Your task to perform on an android device: clear all cookies in the chrome app Image 0: 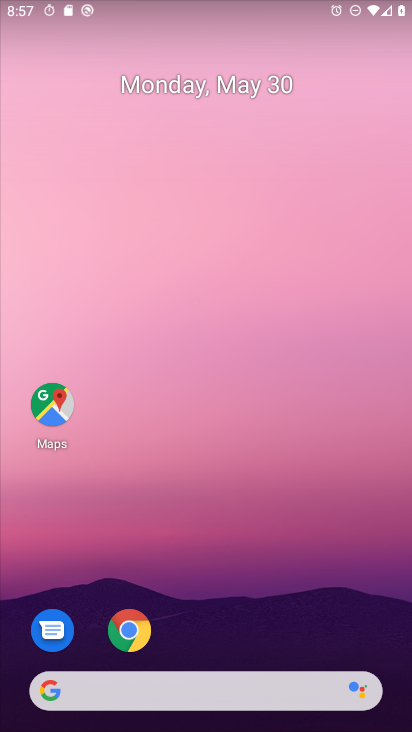
Step 0: drag from (383, 643) to (312, 59)
Your task to perform on an android device: clear all cookies in the chrome app Image 1: 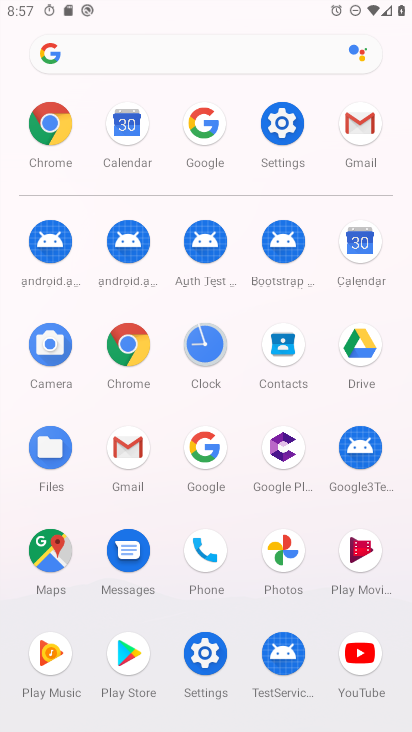
Step 1: click (139, 365)
Your task to perform on an android device: clear all cookies in the chrome app Image 2: 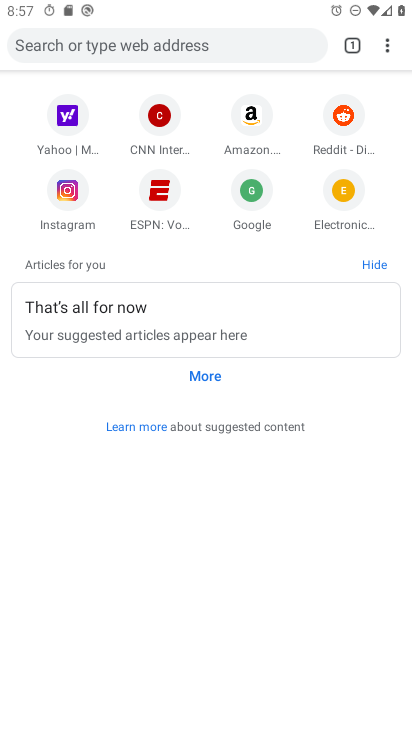
Step 2: click (380, 40)
Your task to perform on an android device: clear all cookies in the chrome app Image 3: 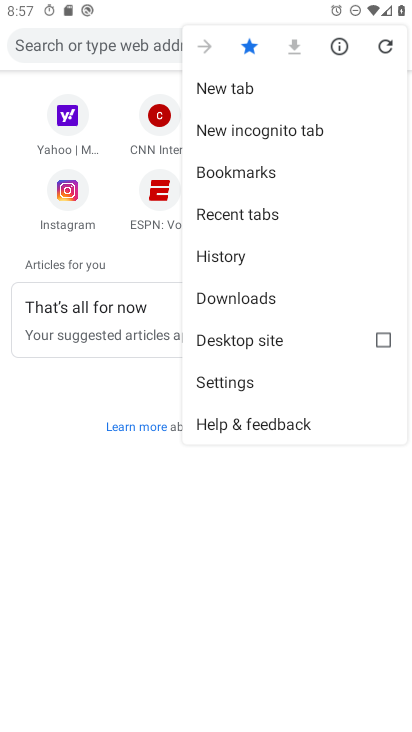
Step 3: click (242, 251)
Your task to perform on an android device: clear all cookies in the chrome app Image 4: 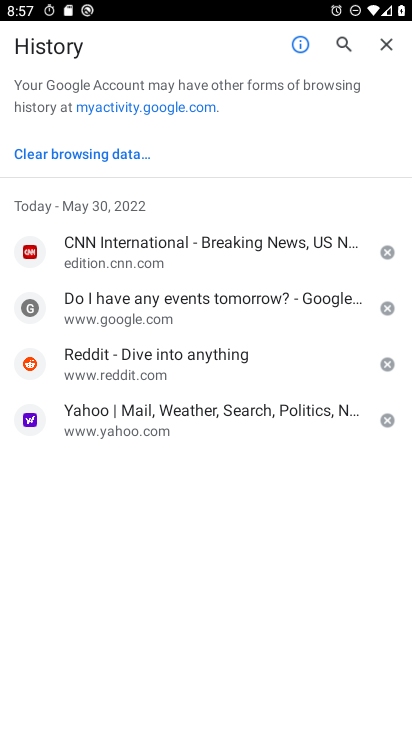
Step 4: click (87, 160)
Your task to perform on an android device: clear all cookies in the chrome app Image 5: 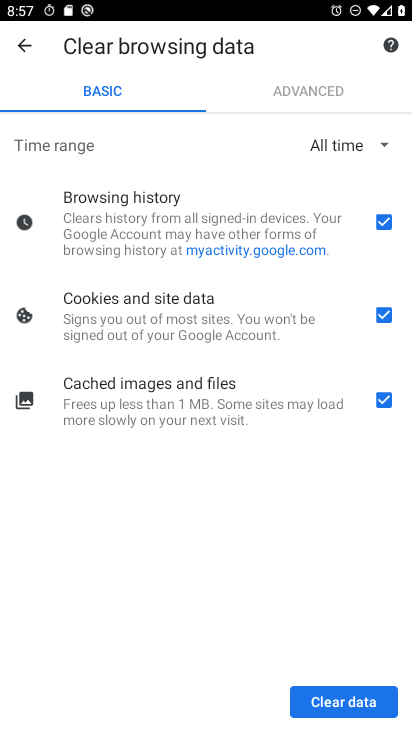
Step 5: click (320, 703)
Your task to perform on an android device: clear all cookies in the chrome app Image 6: 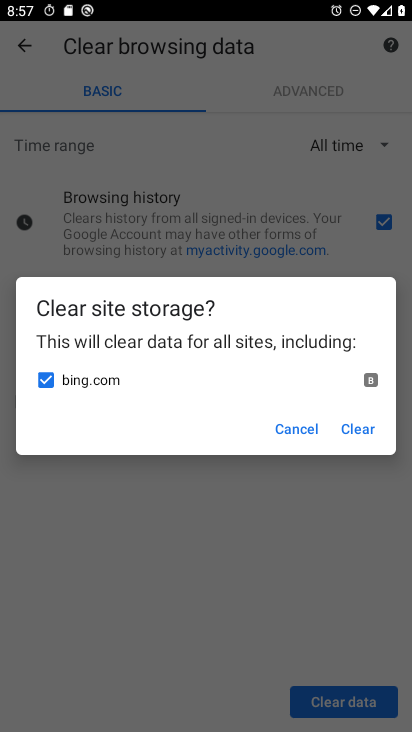
Step 6: click (352, 419)
Your task to perform on an android device: clear all cookies in the chrome app Image 7: 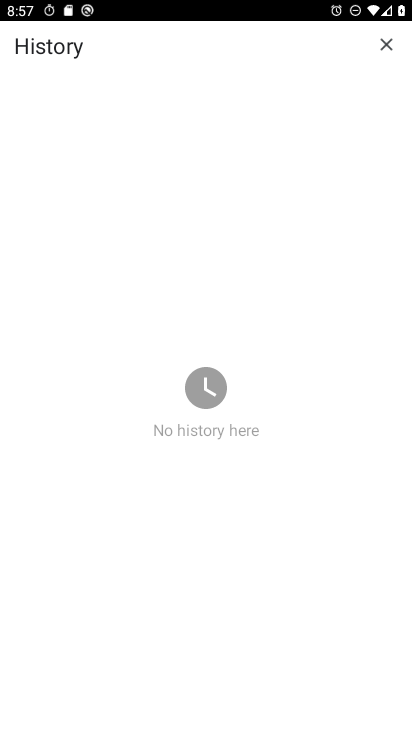
Step 7: task complete